Your task to perform on an android device: Open display settings Image 0: 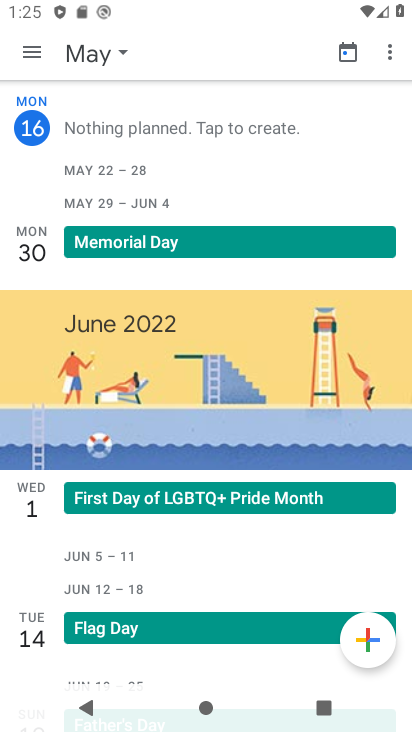
Step 0: press home button
Your task to perform on an android device: Open display settings Image 1: 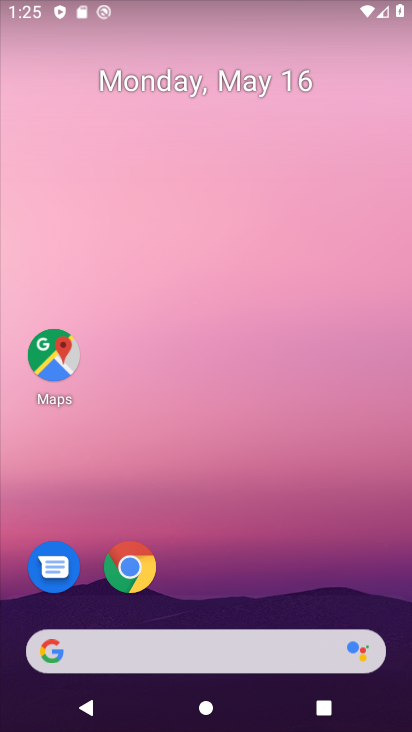
Step 1: drag from (241, 606) to (250, 217)
Your task to perform on an android device: Open display settings Image 2: 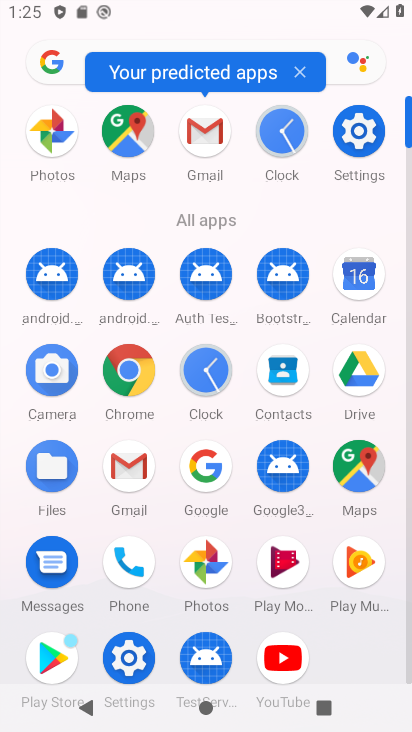
Step 2: click (360, 128)
Your task to perform on an android device: Open display settings Image 3: 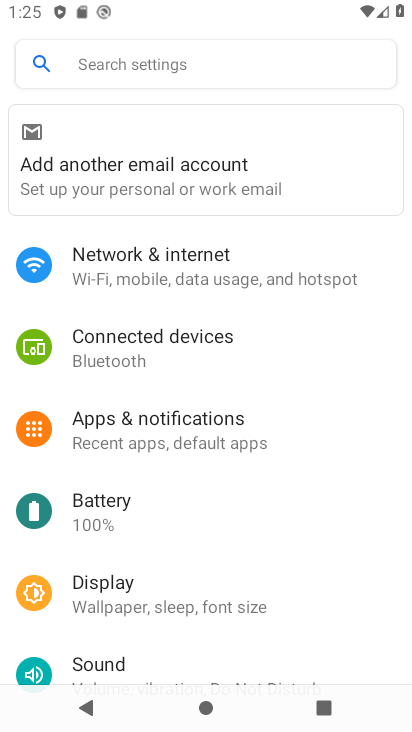
Step 3: click (243, 595)
Your task to perform on an android device: Open display settings Image 4: 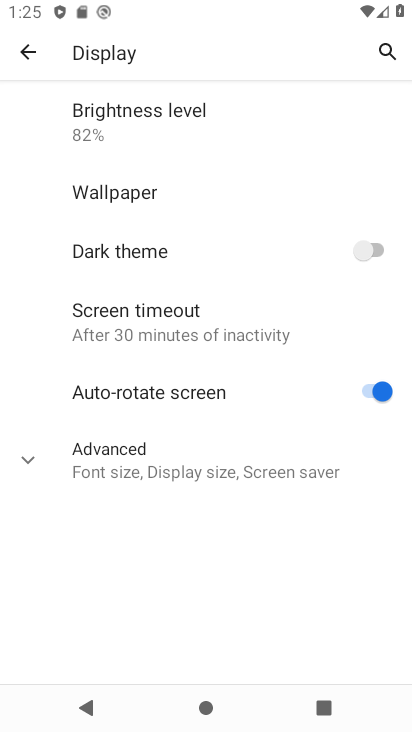
Step 4: task complete